Your task to perform on an android device: Open notification settings Image 0: 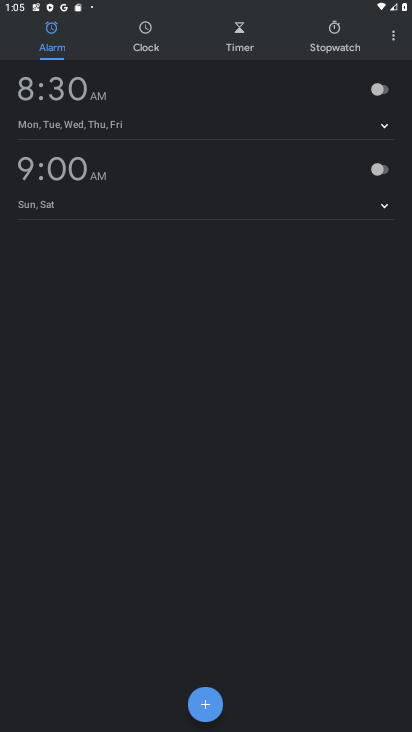
Step 0: drag from (27, 721) to (335, 24)
Your task to perform on an android device: Open notification settings Image 1: 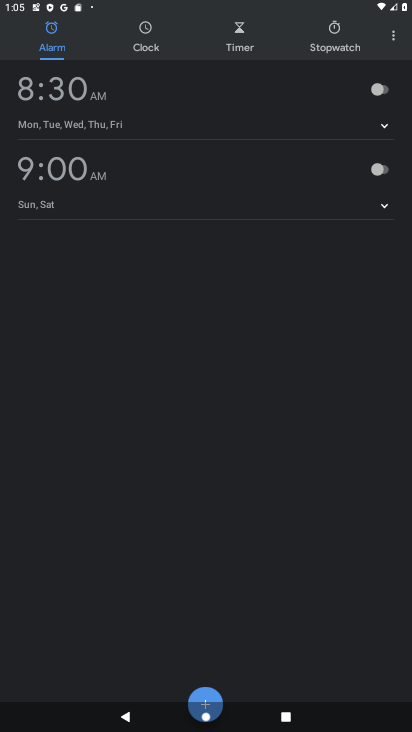
Step 1: press home button
Your task to perform on an android device: Open notification settings Image 2: 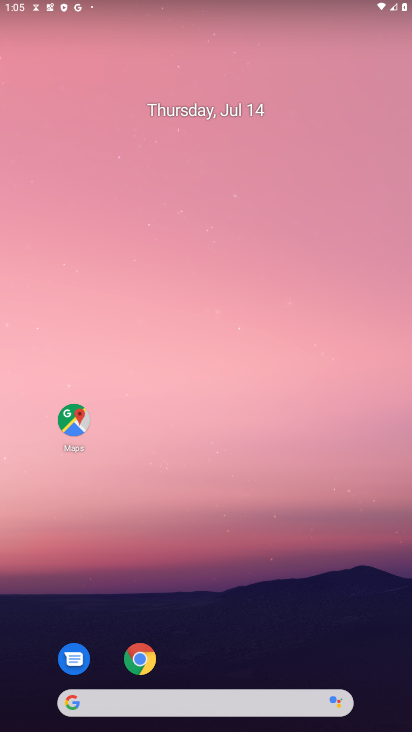
Step 2: drag from (48, 659) to (262, 175)
Your task to perform on an android device: Open notification settings Image 3: 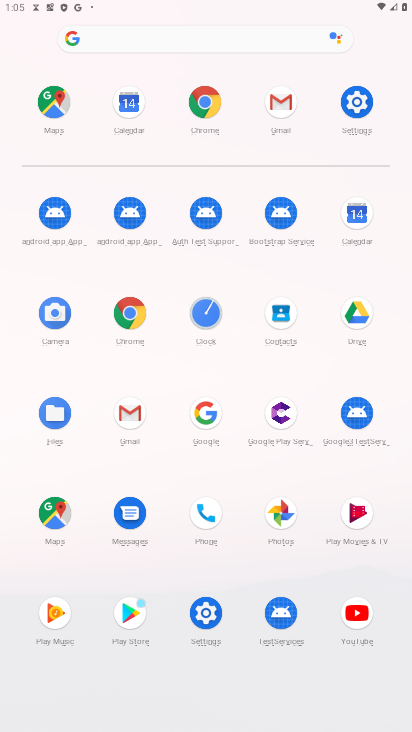
Step 3: click (198, 605)
Your task to perform on an android device: Open notification settings Image 4: 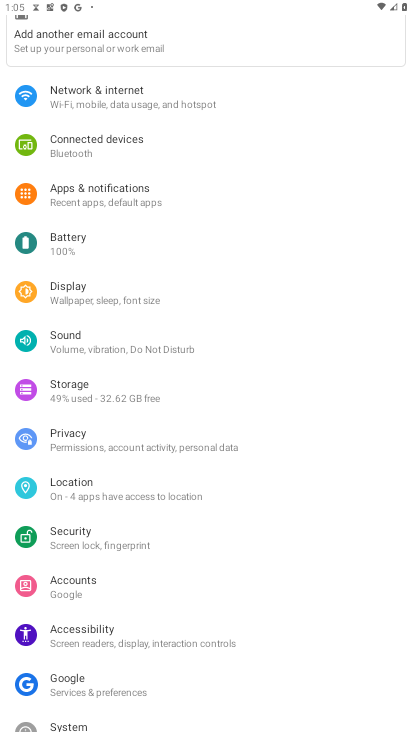
Step 4: click (93, 196)
Your task to perform on an android device: Open notification settings Image 5: 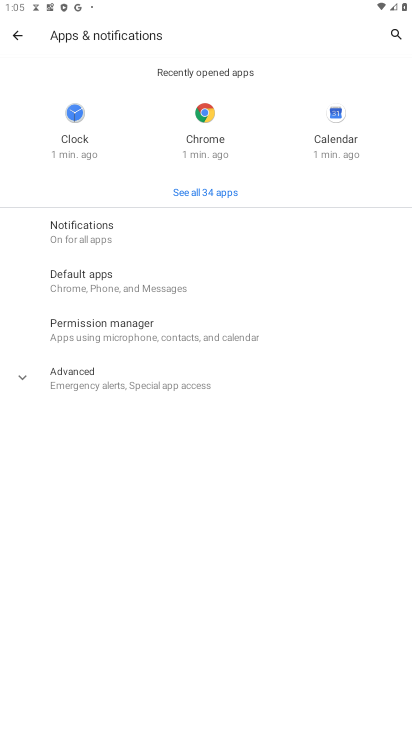
Step 5: task complete